Your task to perform on an android device: turn pop-ups on in chrome Image 0: 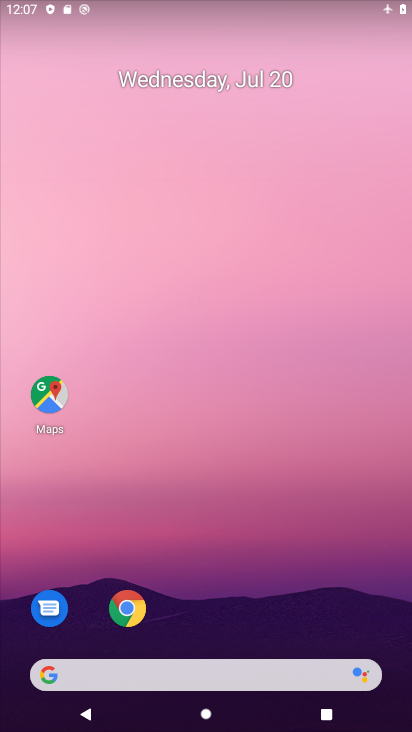
Step 0: click (127, 610)
Your task to perform on an android device: turn pop-ups on in chrome Image 1: 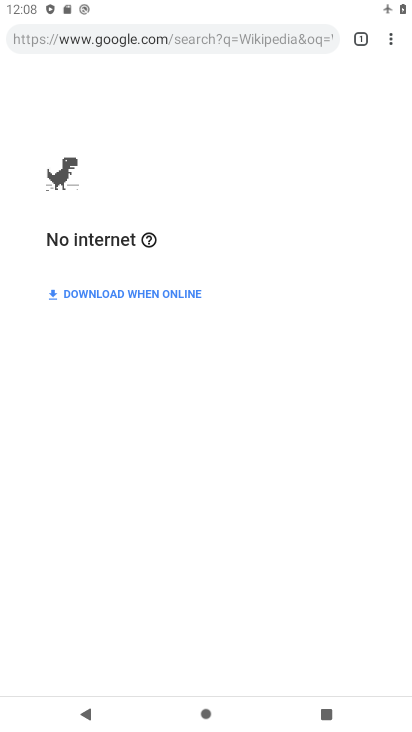
Step 1: click (392, 39)
Your task to perform on an android device: turn pop-ups on in chrome Image 2: 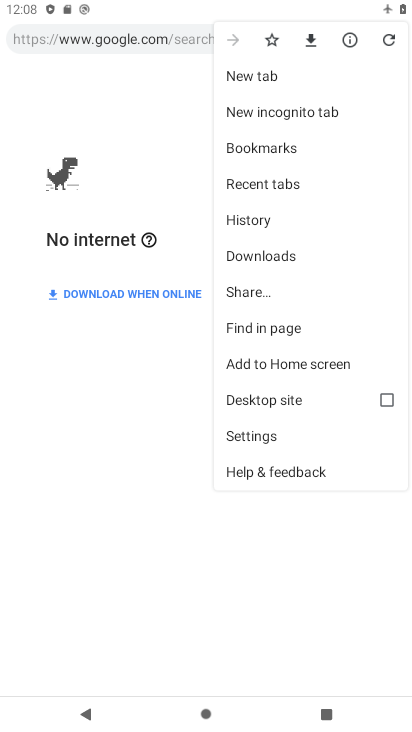
Step 2: click (262, 435)
Your task to perform on an android device: turn pop-ups on in chrome Image 3: 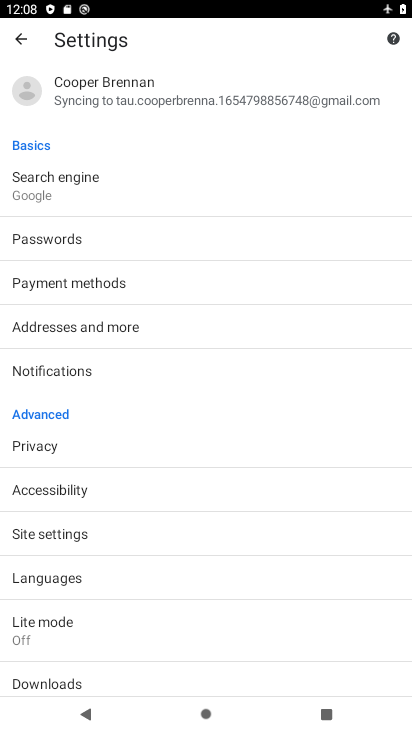
Step 3: click (66, 532)
Your task to perform on an android device: turn pop-ups on in chrome Image 4: 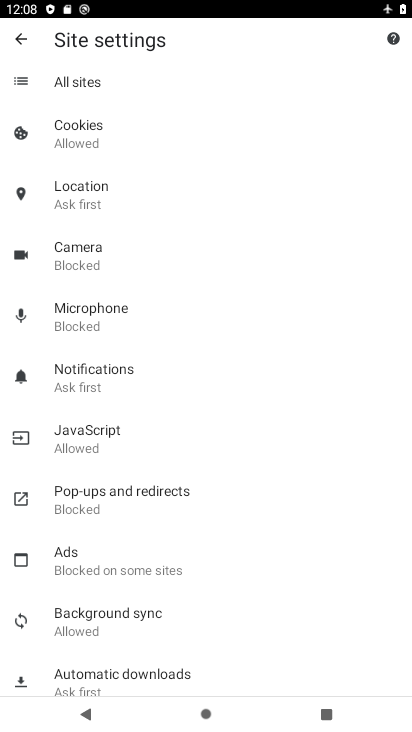
Step 4: click (97, 489)
Your task to perform on an android device: turn pop-ups on in chrome Image 5: 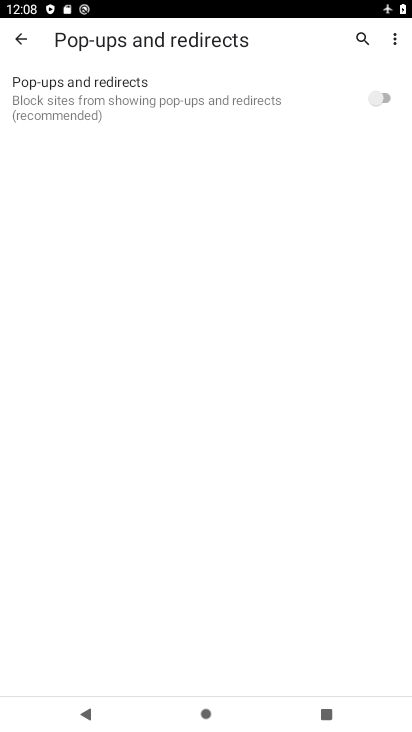
Step 5: click (382, 101)
Your task to perform on an android device: turn pop-ups on in chrome Image 6: 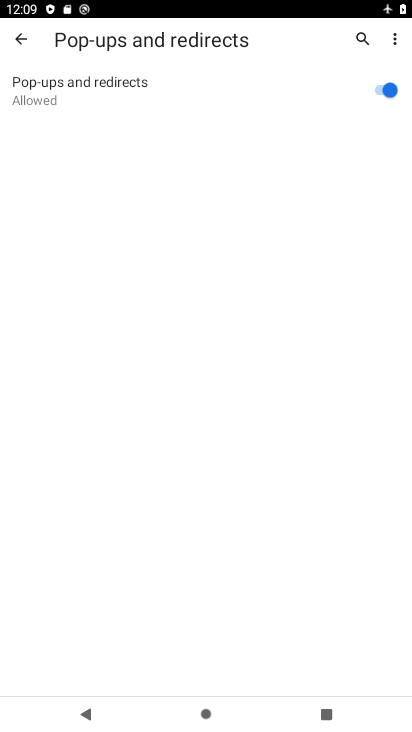
Step 6: task complete